Your task to perform on an android device: read, delete, or share a saved page in the chrome app Image 0: 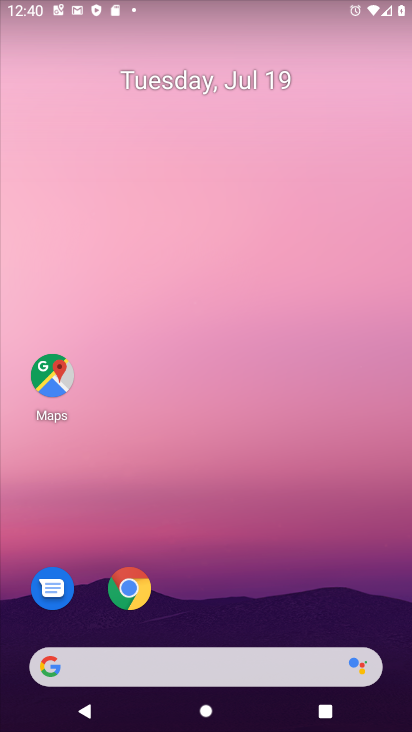
Step 0: drag from (384, 603) to (216, 64)
Your task to perform on an android device: read, delete, or share a saved page in the chrome app Image 1: 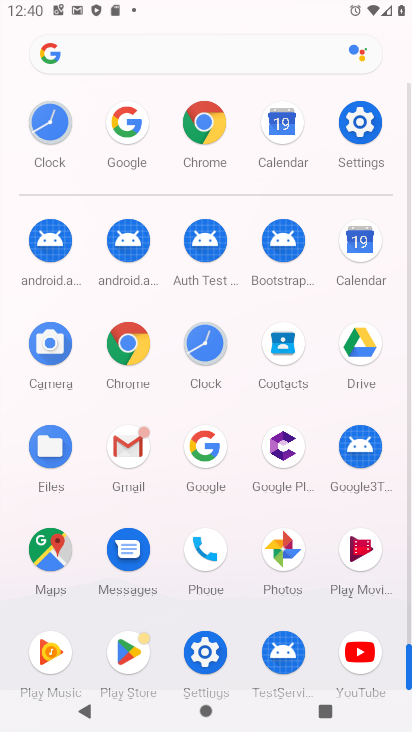
Step 1: click (136, 331)
Your task to perform on an android device: read, delete, or share a saved page in the chrome app Image 2: 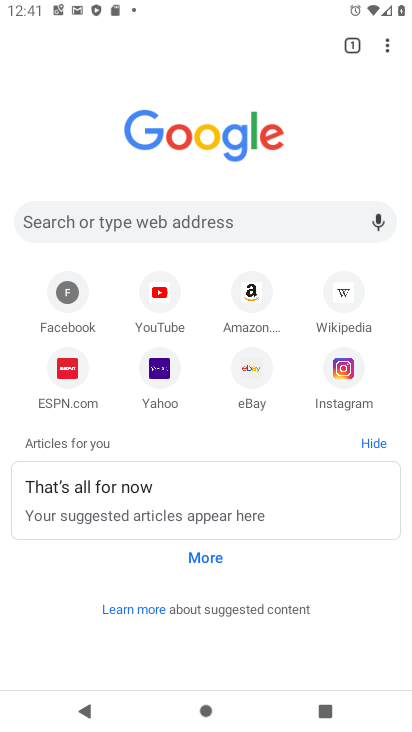
Step 2: task complete